Your task to perform on an android device: toggle notification dots Image 0: 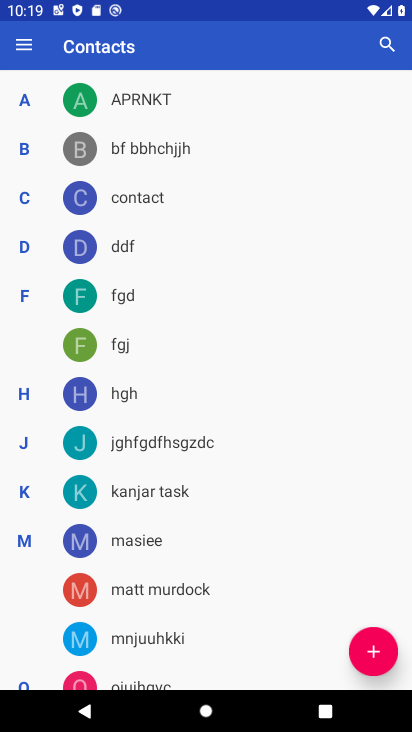
Step 0: press home button
Your task to perform on an android device: toggle notification dots Image 1: 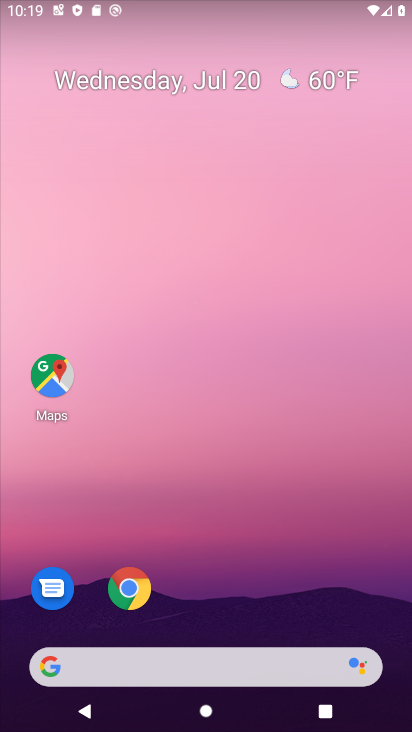
Step 1: drag from (222, 618) to (232, 81)
Your task to perform on an android device: toggle notification dots Image 2: 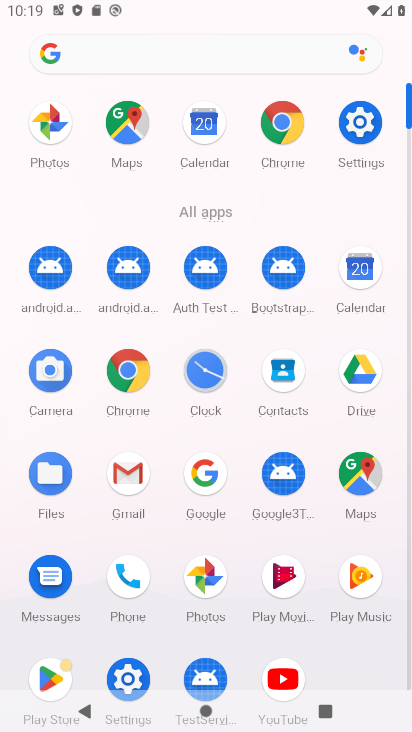
Step 2: click (373, 141)
Your task to perform on an android device: toggle notification dots Image 3: 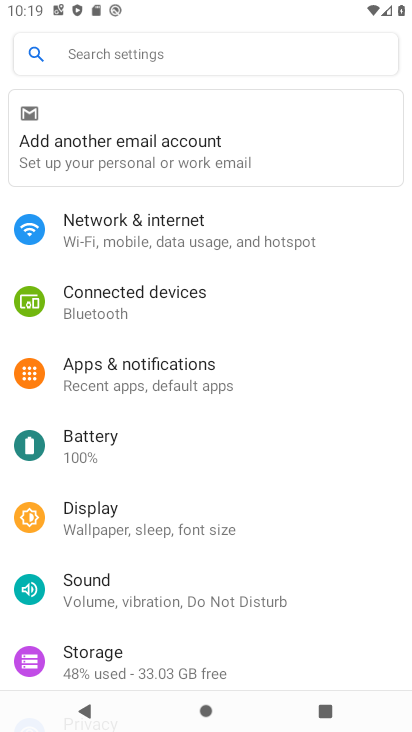
Step 3: click (157, 380)
Your task to perform on an android device: toggle notification dots Image 4: 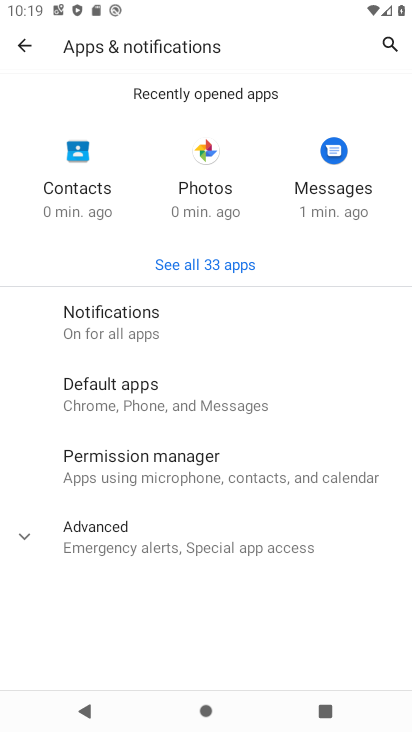
Step 4: click (151, 307)
Your task to perform on an android device: toggle notification dots Image 5: 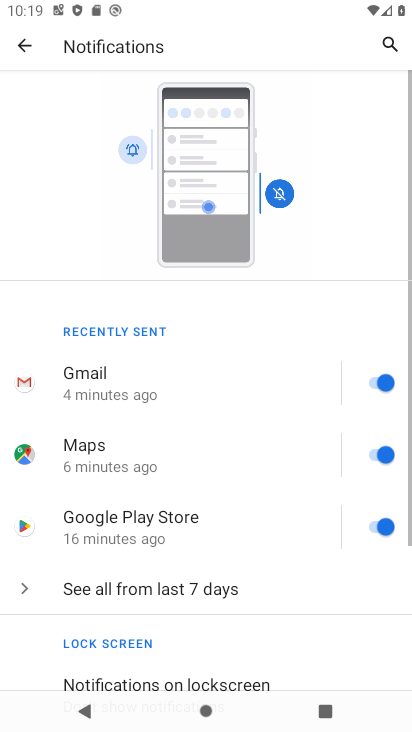
Step 5: drag from (152, 626) to (243, 159)
Your task to perform on an android device: toggle notification dots Image 6: 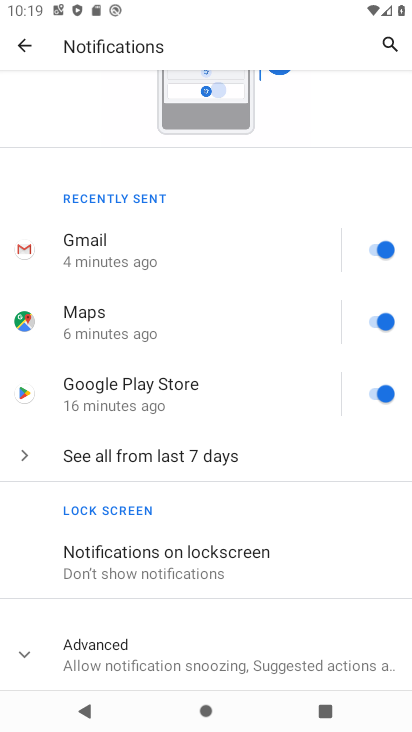
Step 6: click (175, 660)
Your task to perform on an android device: toggle notification dots Image 7: 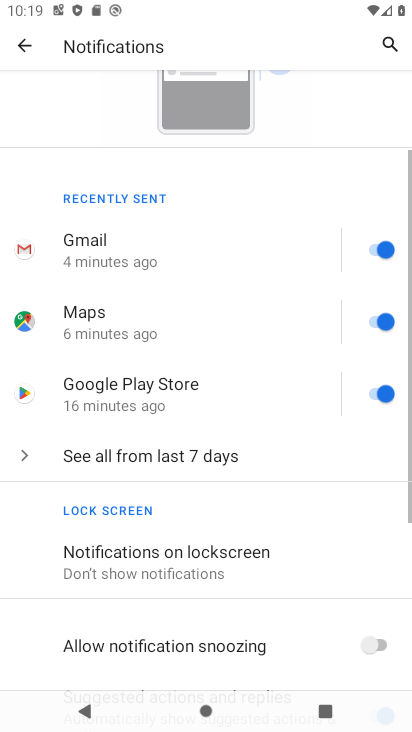
Step 7: drag from (177, 657) to (222, 351)
Your task to perform on an android device: toggle notification dots Image 8: 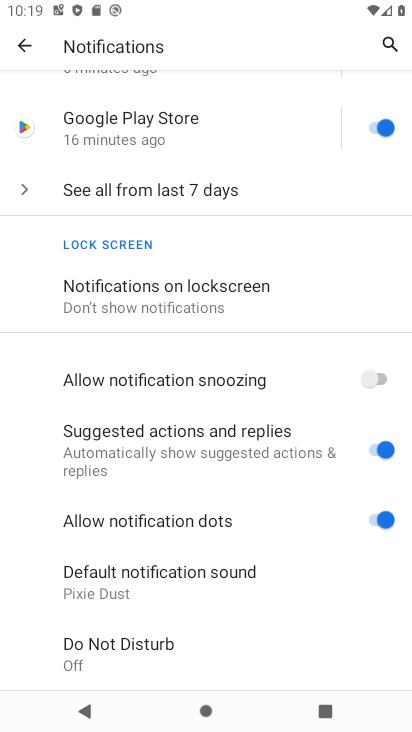
Step 8: click (344, 513)
Your task to perform on an android device: toggle notification dots Image 9: 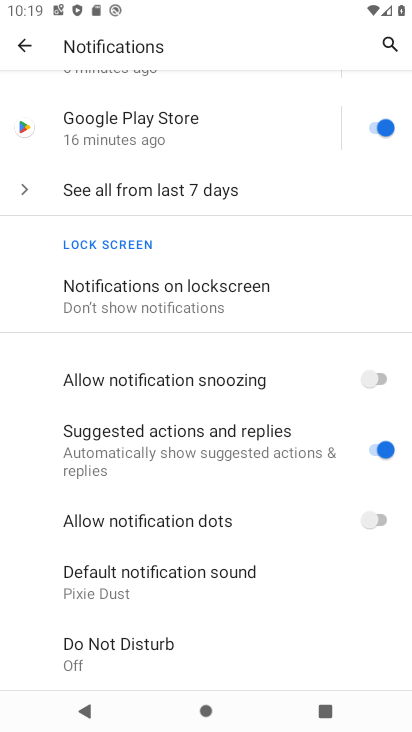
Step 9: task complete